Your task to perform on an android device: turn off translation in the chrome app Image 0: 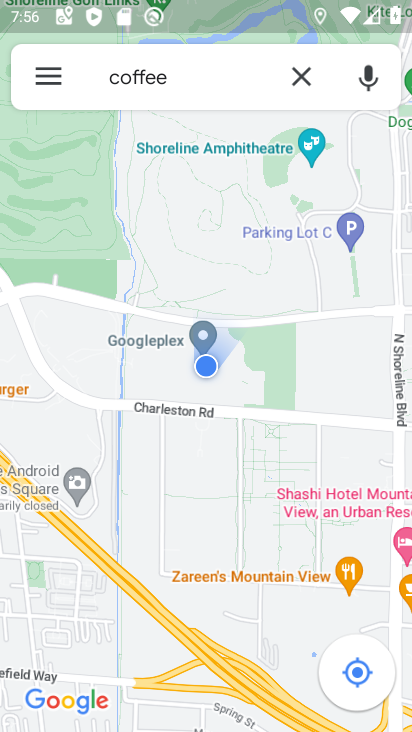
Step 0: press home button
Your task to perform on an android device: turn off translation in the chrome app Image 1: 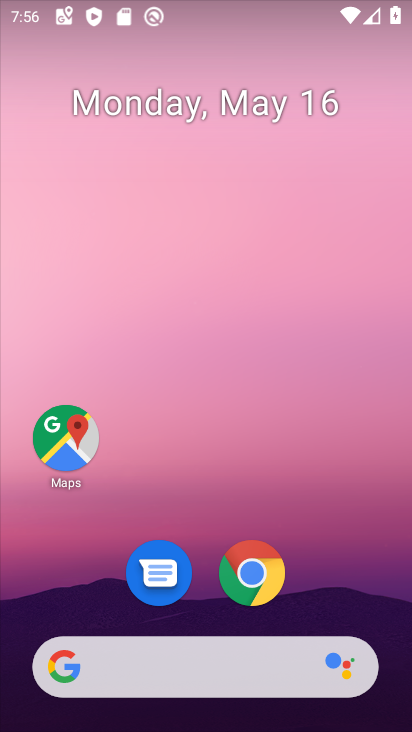
Step 1: drag from (367, 492) to (366, 85)
Your task to perform on an android device: turn off translation in the chrome app Image 2: 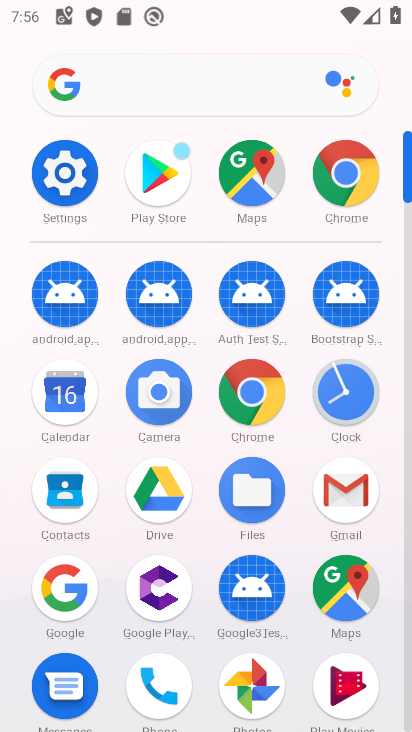
Step 2: click (371, 177)
Your task to perform on an android device: turn off translation in the chrome app Image 3: 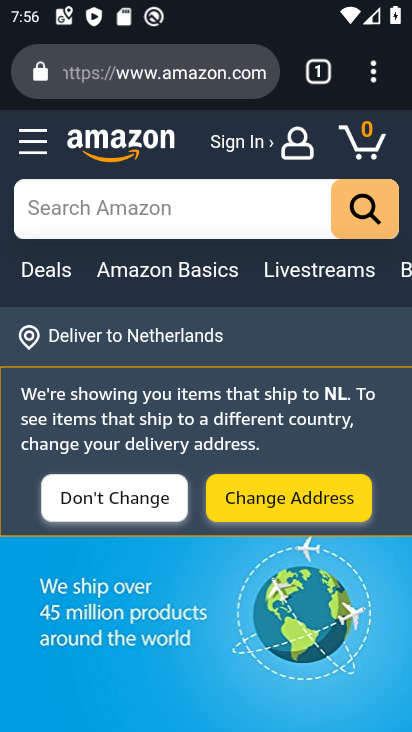
Step 3: drag from (376, 81) to (122, 544)
Your task to perform on an android device: turn off translation in the chrome app Image 4: 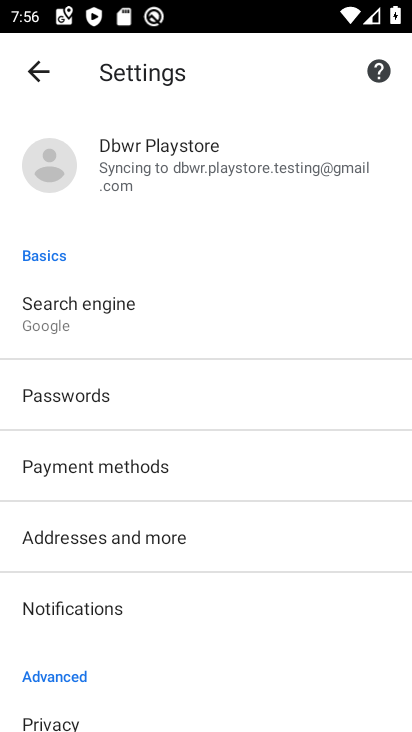
Step 4: drag from (161, 624) to (240, 208)
Your task to perform on an android device: turn off translation in the chrome app Image 5: 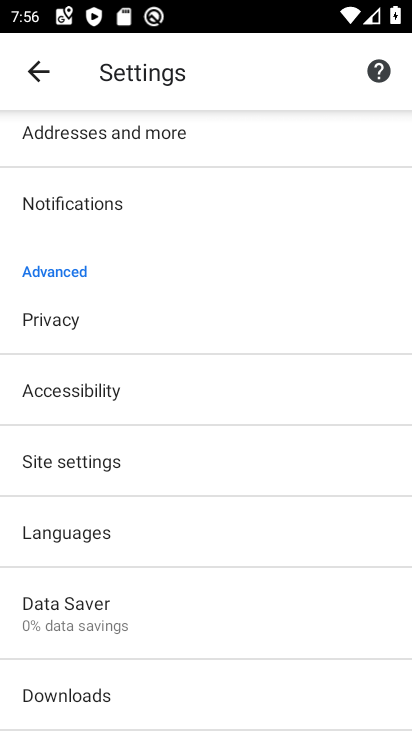
Step 5: click (152, 539)
Your task to perform on an android device: turn off translation in the chrome app Image 6: 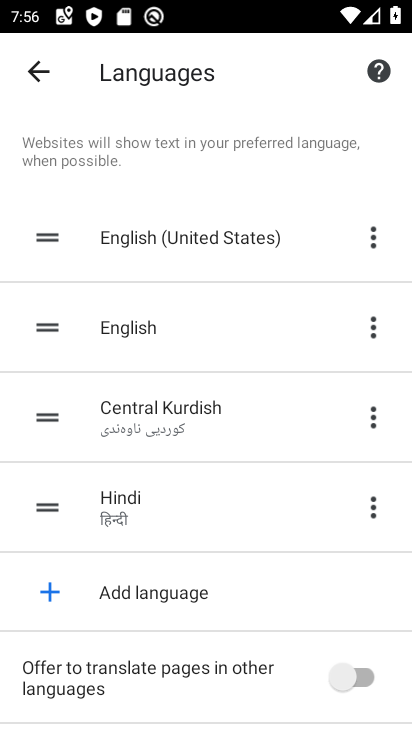
Step 6: task complete